Your task to perform on an android device: manage bookmarks in the chrome app Image 0: 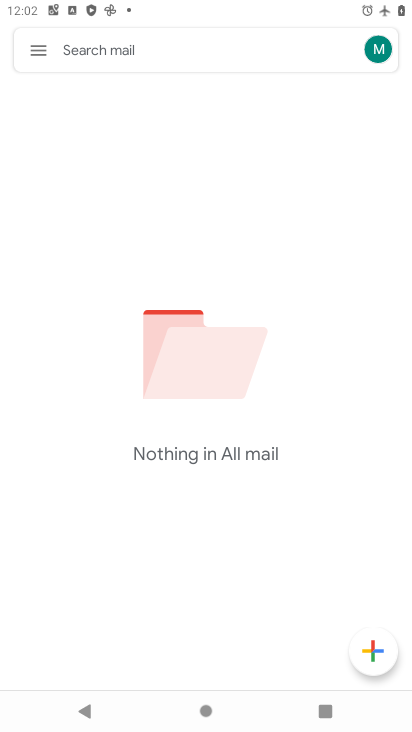
Step 0: press home button
Your task to perform on an android device: manage bookmarks in the chrome app Image 1: 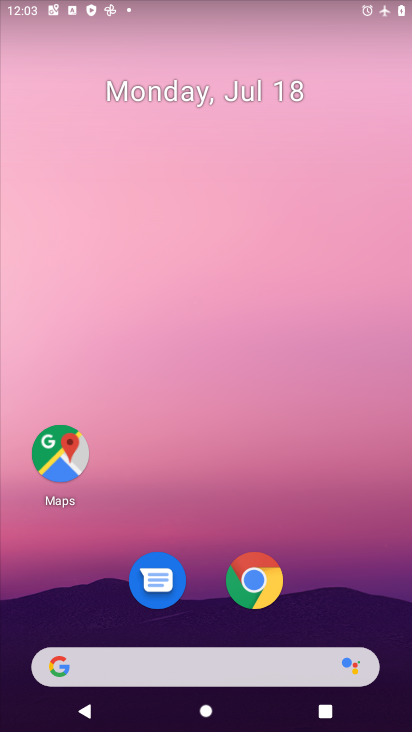
Step 1: drag from (186, 387) to (196, 315)
Your task to perform on an android device: manage bookmarks in the chrome app Image 2: 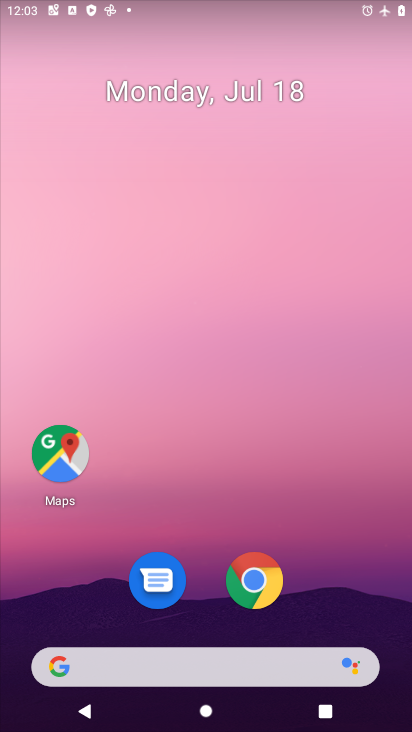
Step 2: drag from (209, 661) to (220, 299)
Your task to perform on an android device: manage bookmarks in the chrome app Image 3: 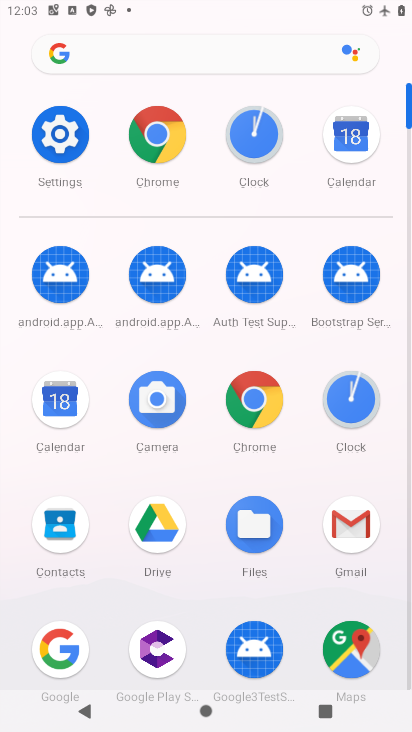
Step 3: click (244, 426)
Your task to perform on an android device: manage bookmarks in the chrome app Image 4: 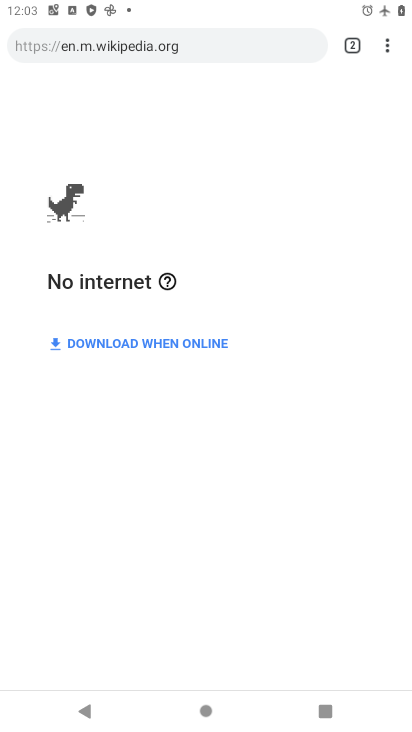
Step 4: click (387, 44)
Your task to perform on an android device: manage bookmarks in the chrome app Image 5: 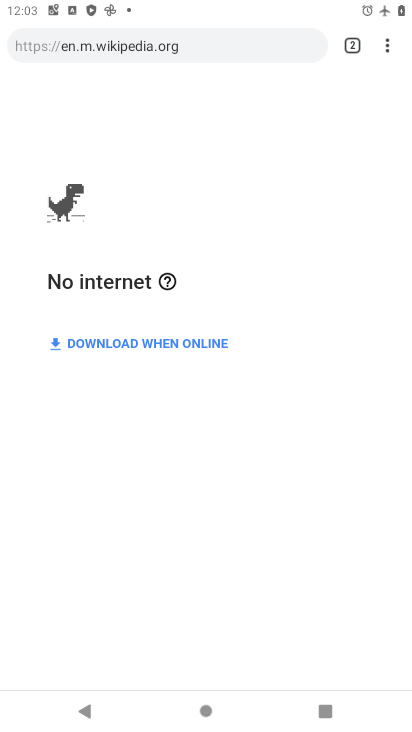
Step 5: click (382, 40)
Your task to perform on an android device: manage bookmarks in the chrome app Image 6: 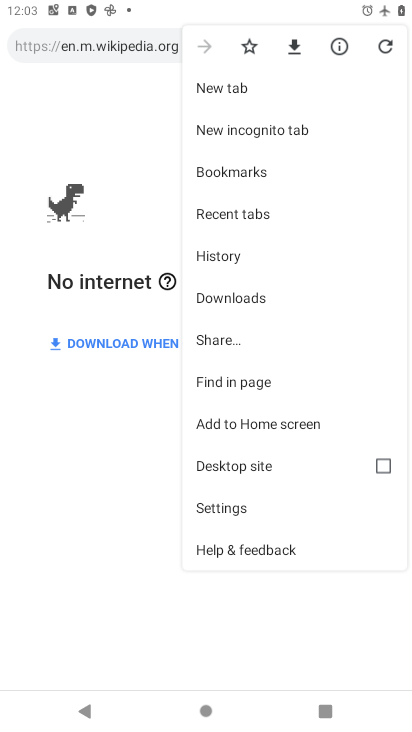
Step 6: click (238, 168)
Your task to perform on an android device: manage bookmarks in the chrome app Image 7: 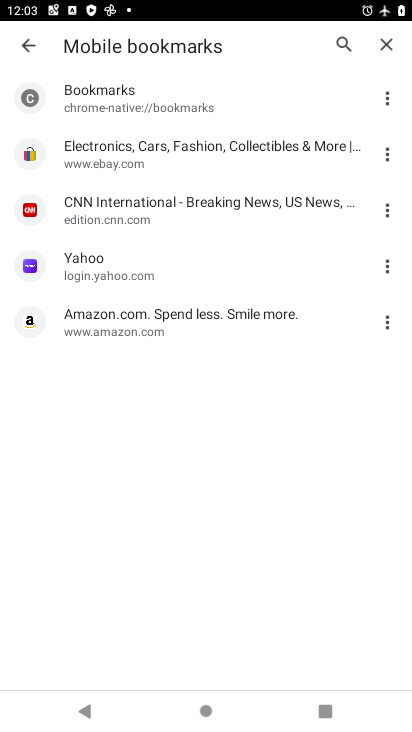
Step 7: task complete